Your task to perform on an android device: turn on notifications settings in the gmail app Image 0: 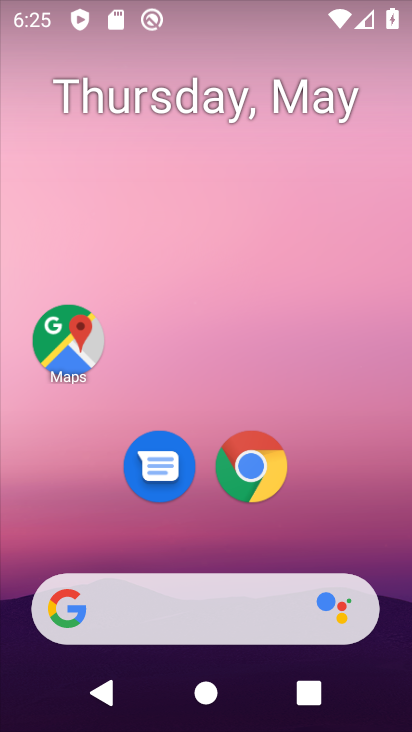
Step 0: press home button
Your task to perform on an android device: turn on notifications settings in the gmail app Image 1: 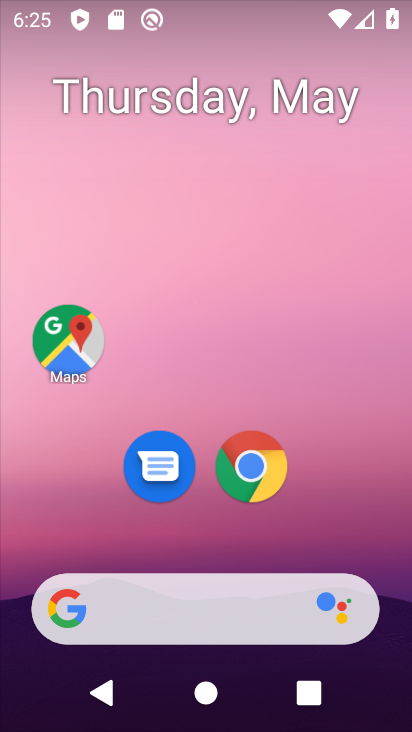
Step 1: drag from (337, 503) to (196, 13)
Your task to perform on an android device: turn on notifications settings in the gmail app Image 2: 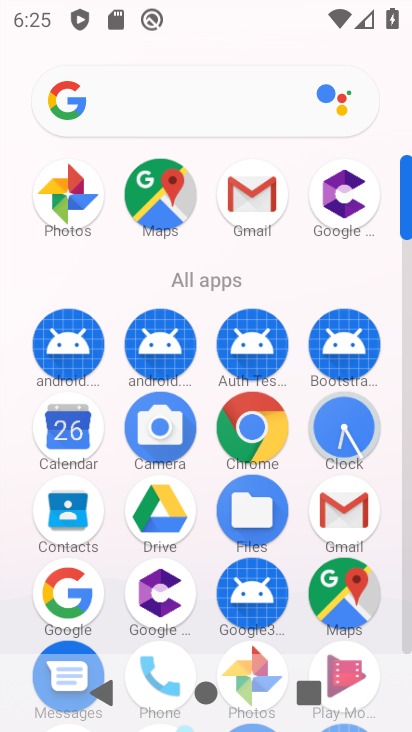
Step 2: click (253, 203)
Your task to perform on an android device: turn on notifications settings in the gmail app Image 3: 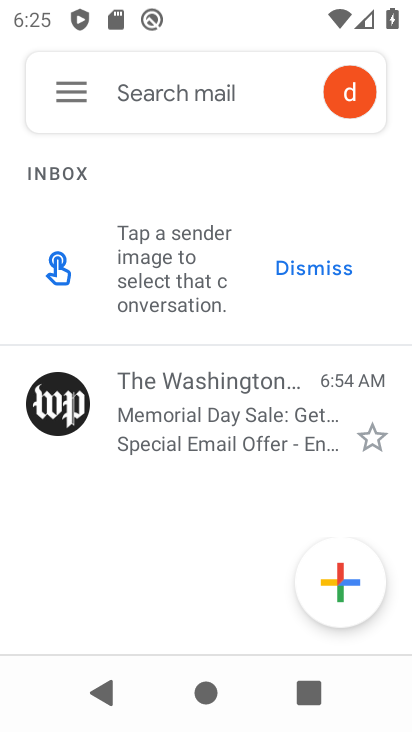
Step 3: click (75, 82)
Your task to perform on an android device: turn on notifications settings in the gmail app Image 4: 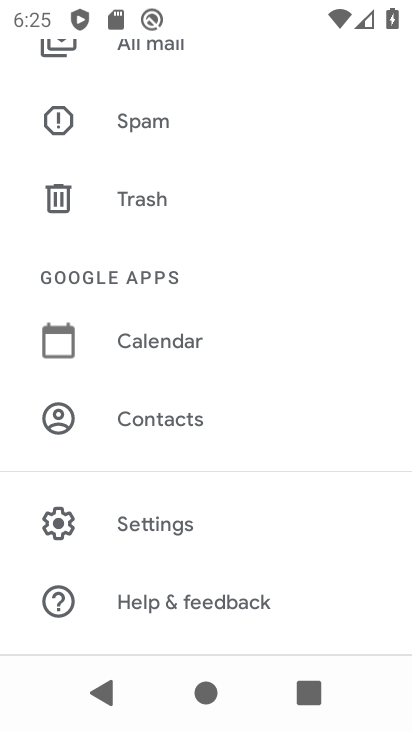
Step 4: click (140, 520)
Your task to perform on an android device: turn on notifications settings in the gmail app Image 5: 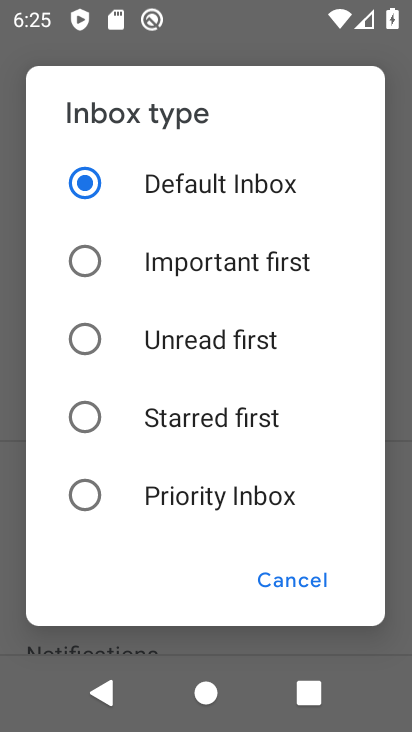
Step 5: click (294, 586)
Your task to perform on an android device: turn on notifications settings in the gmail app Image 6: 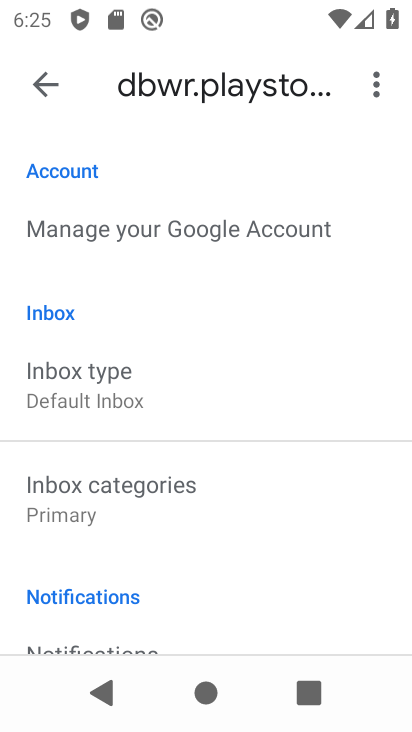
Step 6: click (45, 85)
Your task to perform on an android device: turn on notifications settings in the gmail app Image 7: 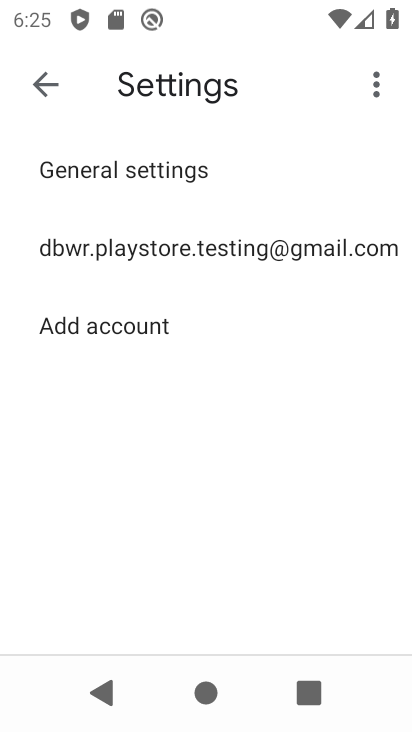
Step 7: click (106, 165)
Your task to perform on an android device: turn on notifications settings in the gmail app Image 8: 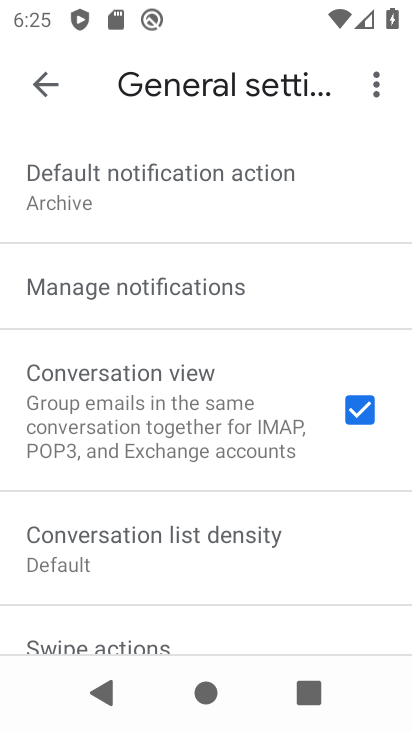
Step 8: click (126, 275)
Your task to perform on an android device: turn on notifications settings in the gmail app Image 9: 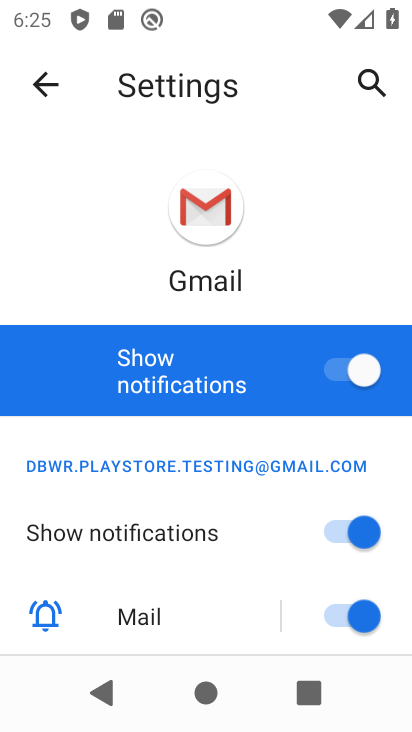
Step 9: task complete